Your task to perform on an android device: Do I have any events tomorrow? Image 0: 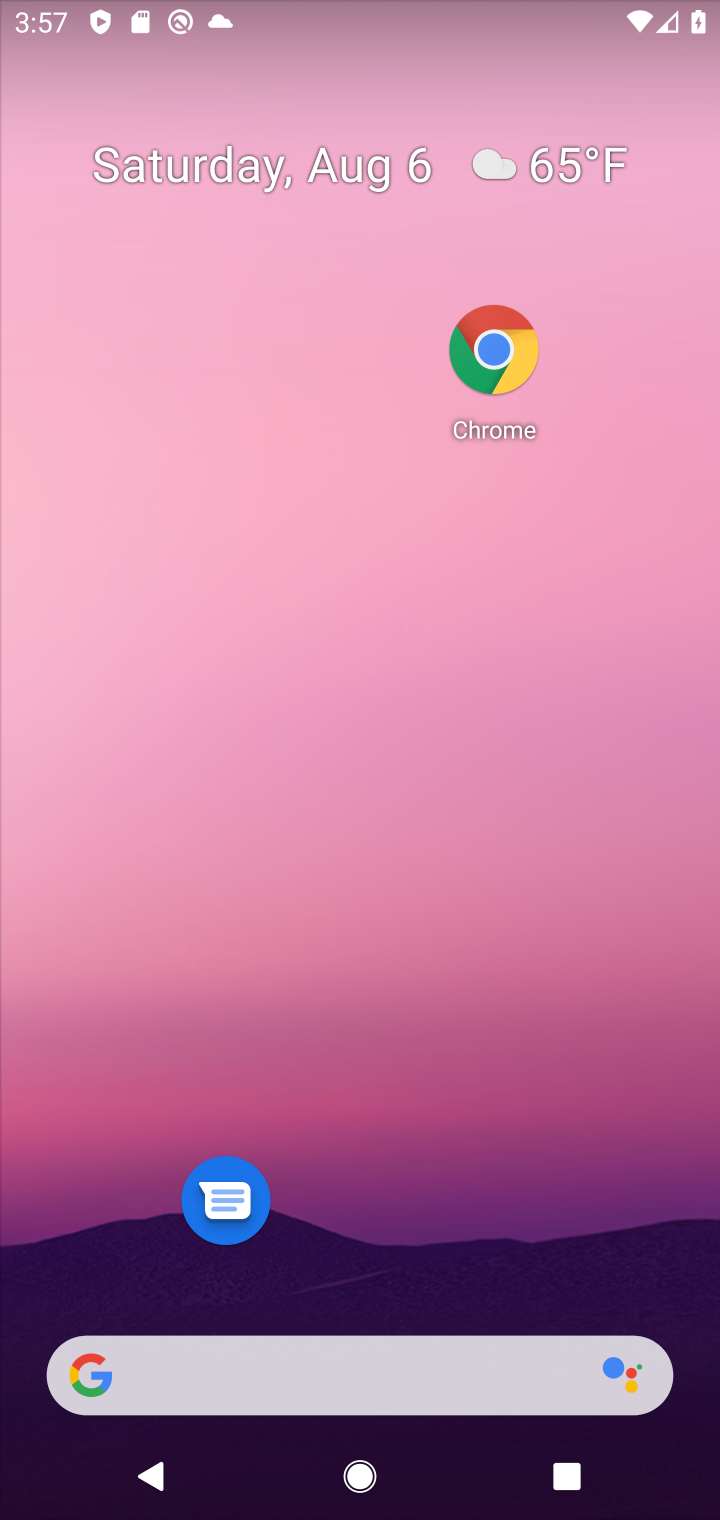
Step 0: drag from (420, 1345) to (496, 575)
Your task to perform on an android device: Do I have any events tomorrow? Image 1: 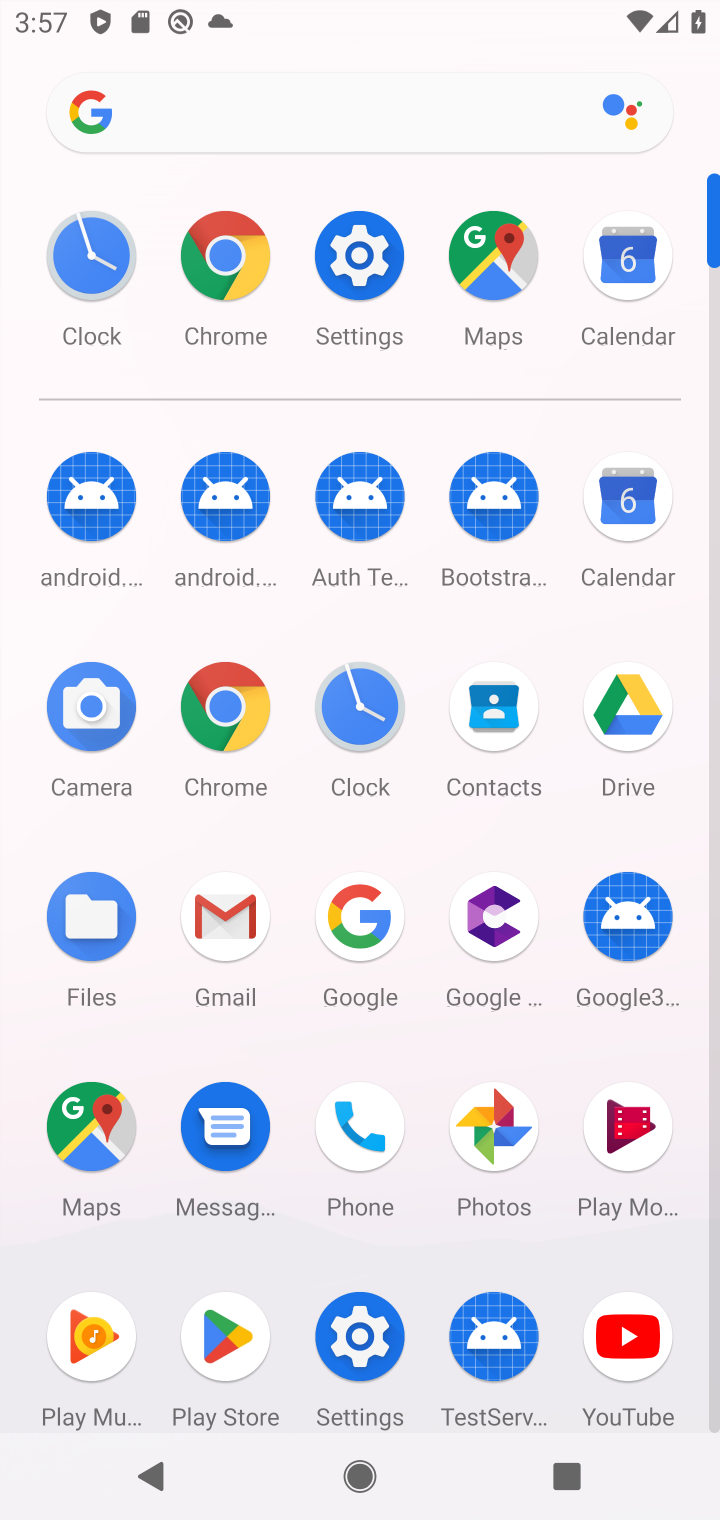
Step 1: click (623, 510)
Your task to perform on an android device: Do I have any events tomorrow? Image 2: 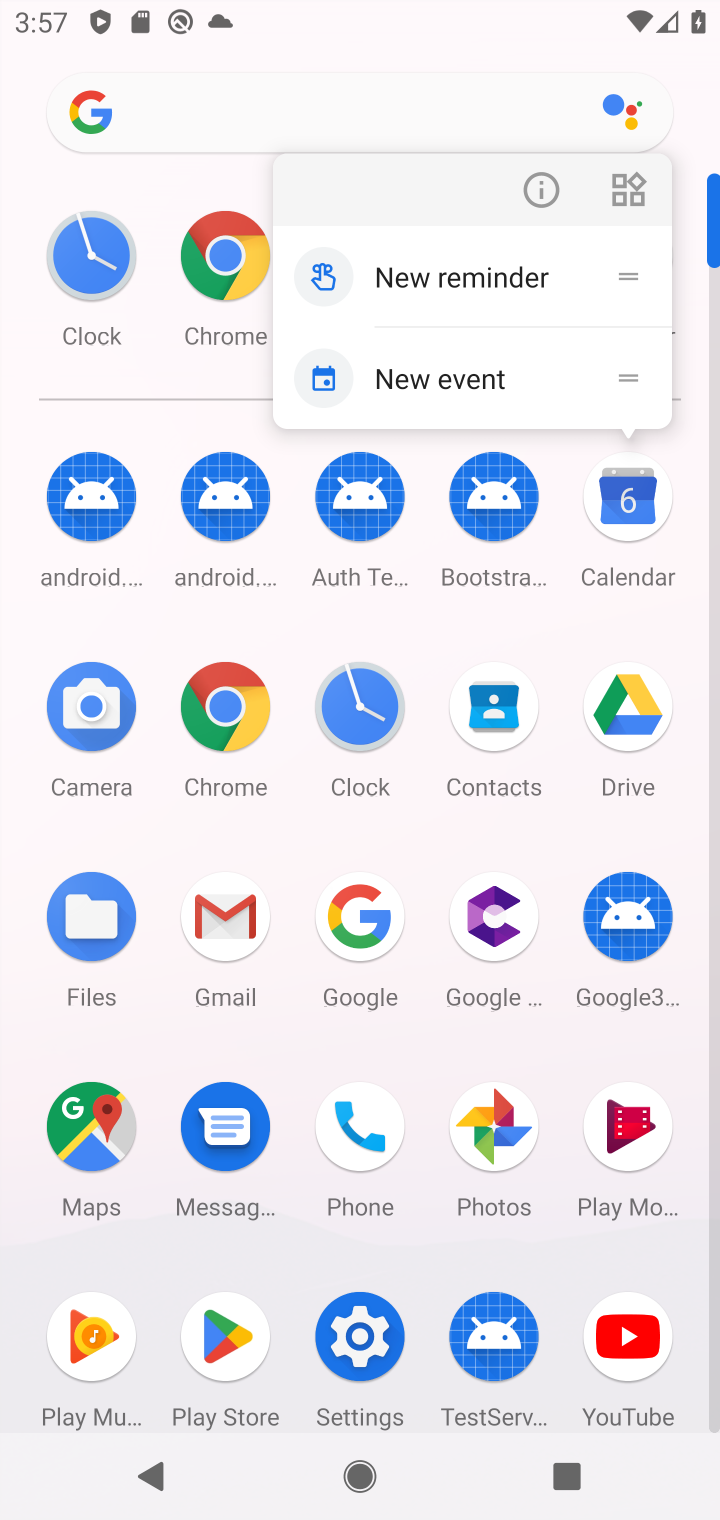
Step 2: click (668, 498)
Your task to perform on an android device: Do I have any events tomorrow? Image 3: 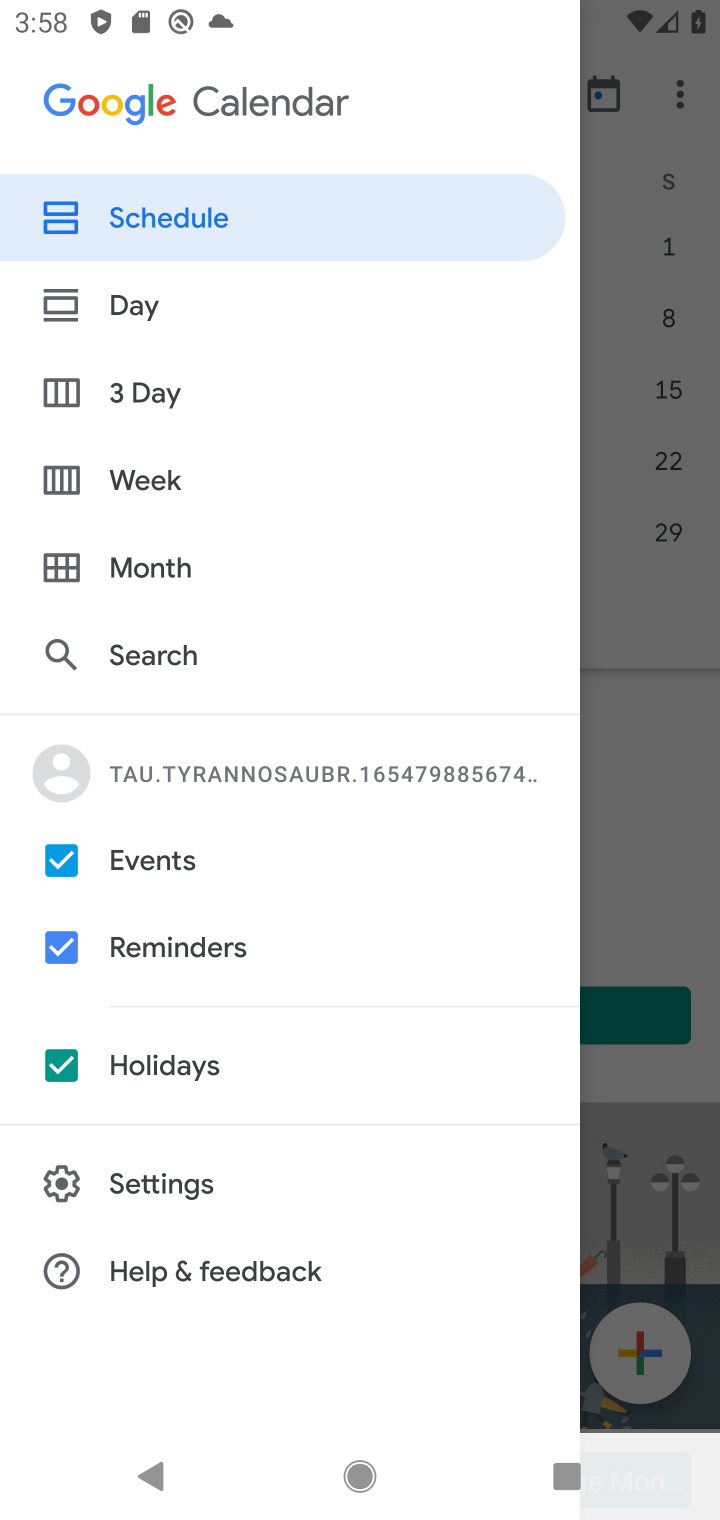
Step 3: click (597, 34)
Your task to perform on an android device: Do I have any events tomorrow? Image 4: 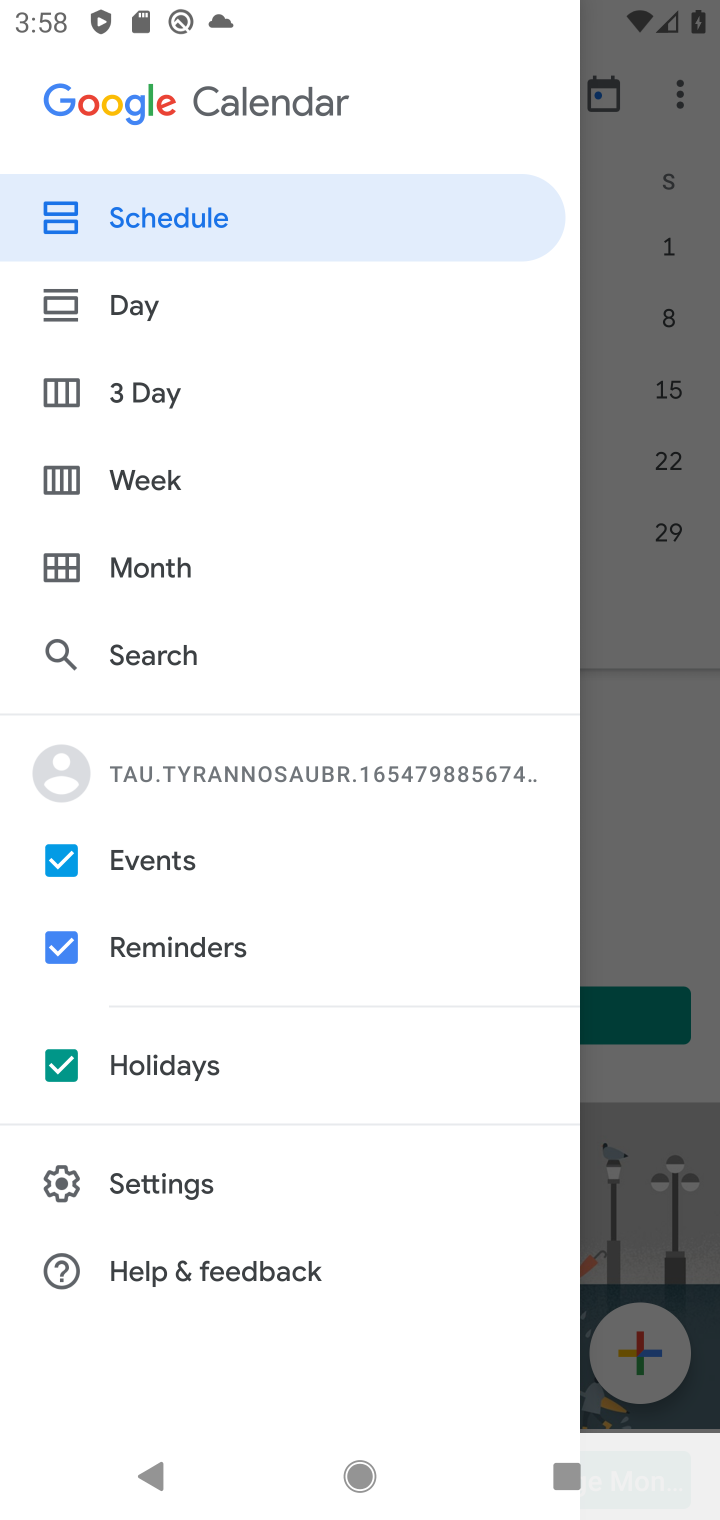
Step 4: click (247, 245)
Your task to perform on an android device: Do I have any events tomorrow? Image 5: 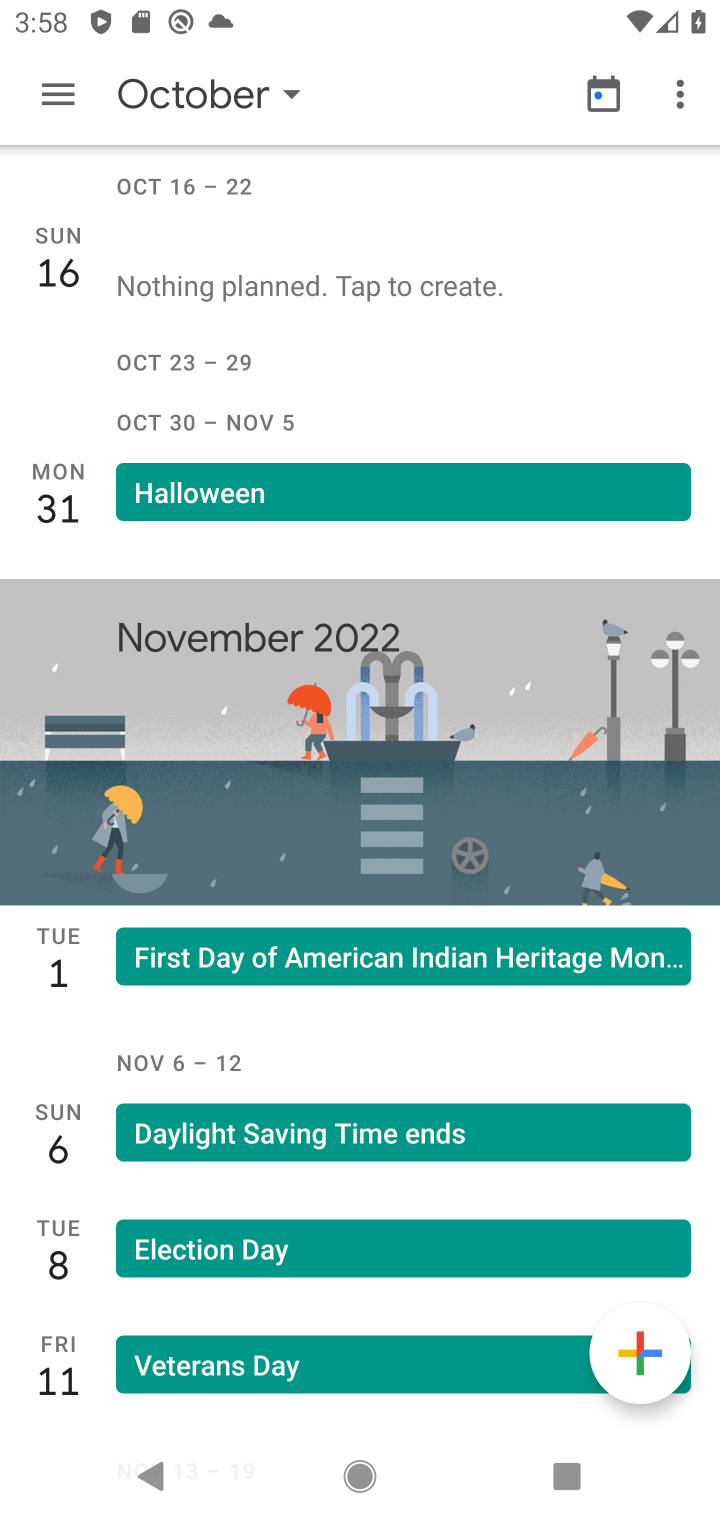
Step 5: click (181, 80)
Your task to perform on an android device: Do I have any events tomorrow? Image 6: 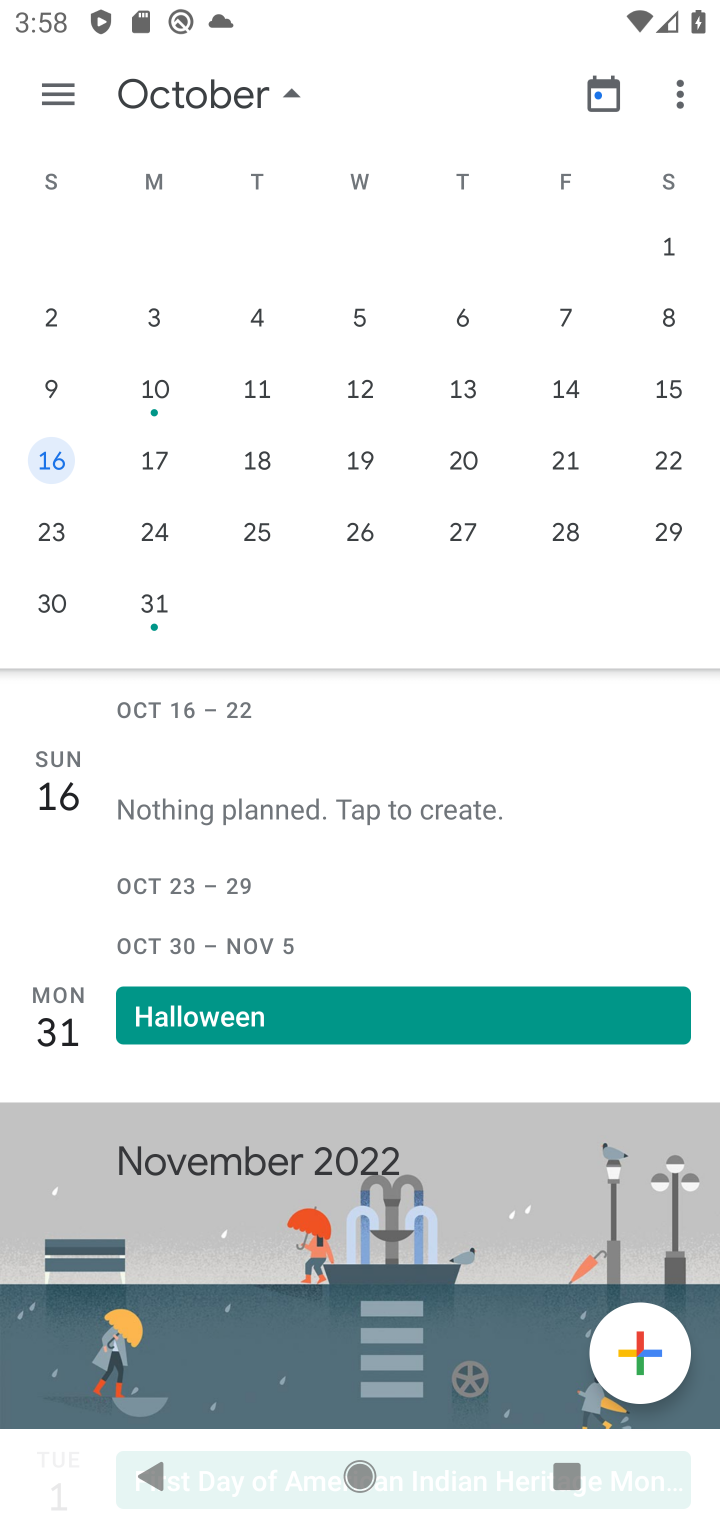
Step 6: drag from (67, 362) to (665, 380)
Your task to perform on an android device: Do I have any events tomorrow? Image 7: 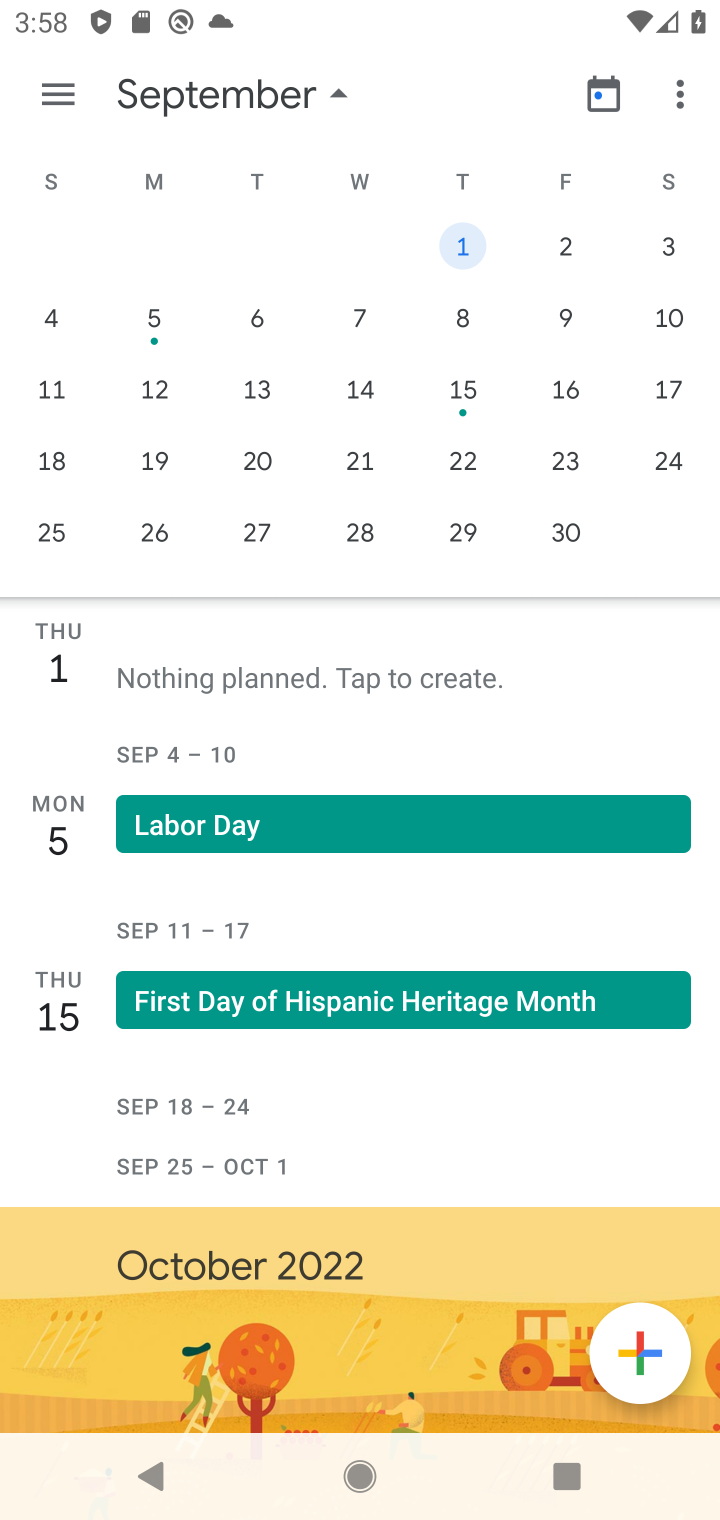
Step 7: click (74, 349)
Your task to perform on an android device: Do I have any events tomorrow? Image 8: 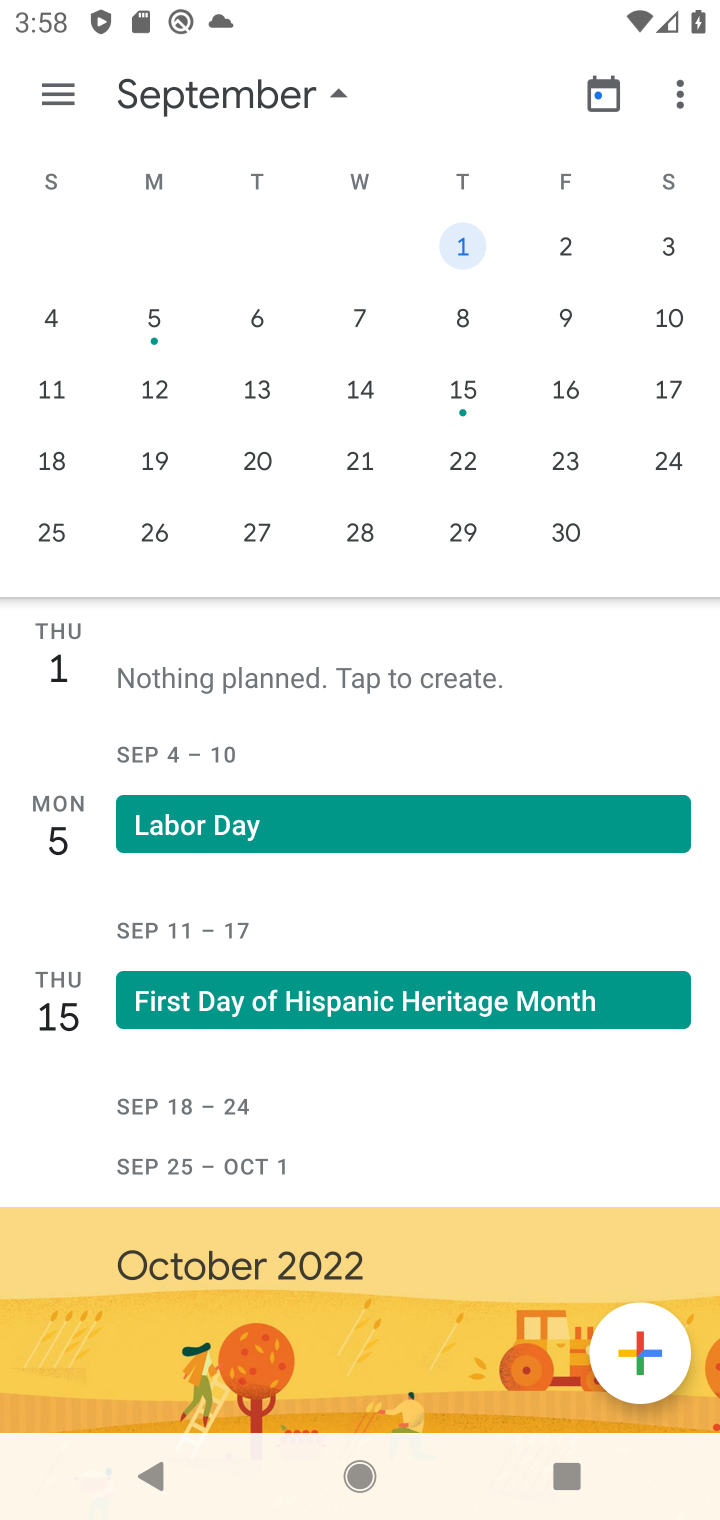
Step 8: drag from (74, 349) to (641, 345)
Your task to perform on an android device: Do I have any events tomorrow? Image 9: 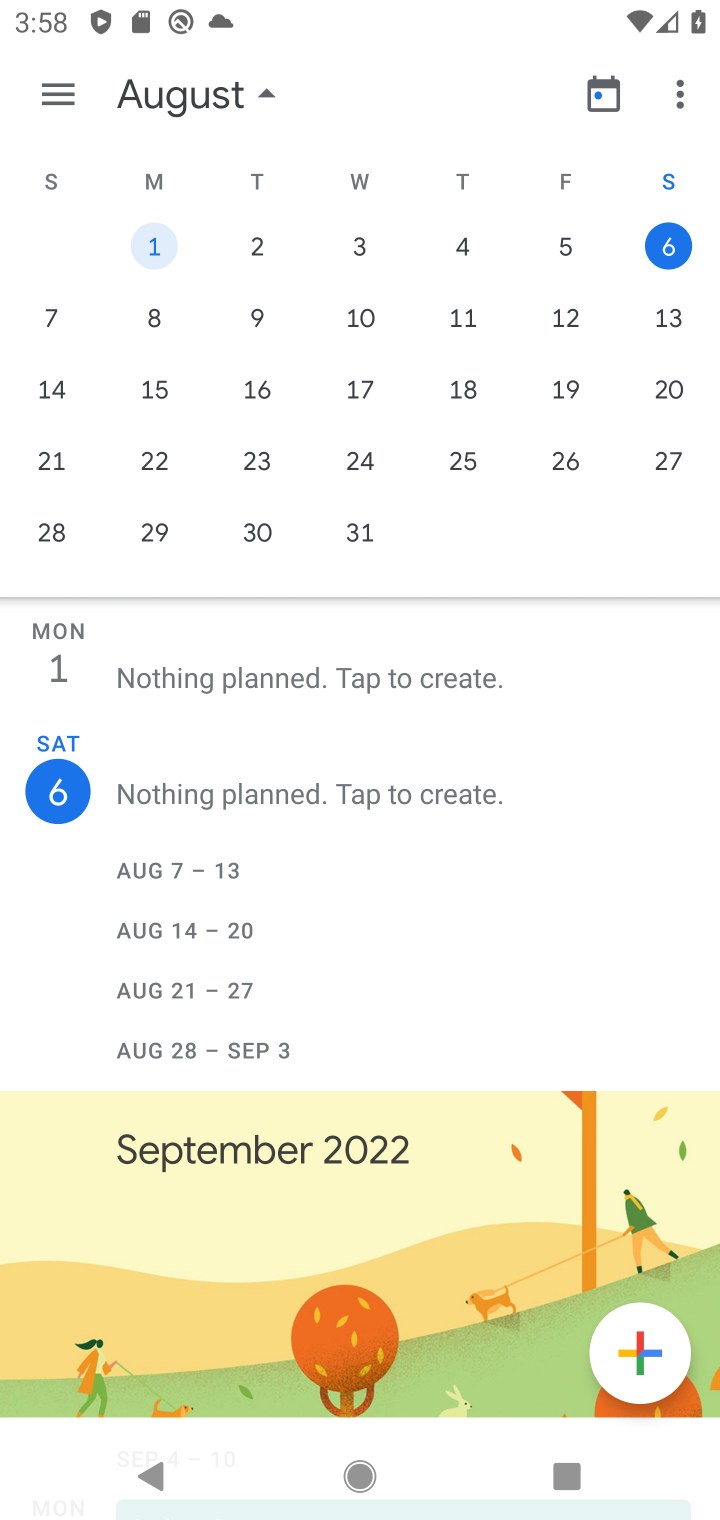
Step 9: click (67, 311)
Your task to perform on an android device: Do I have any events tomorrow? Image 10: 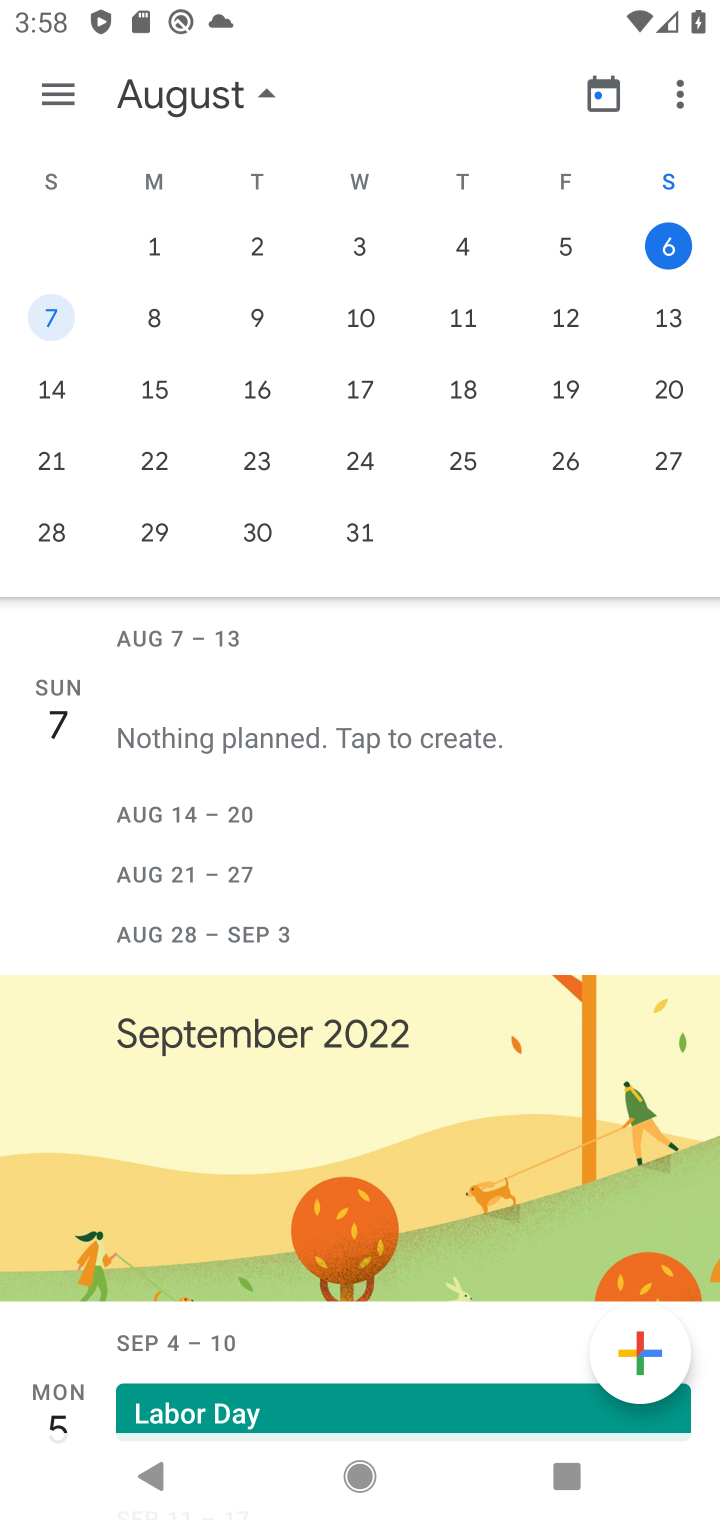
Step 10: task complete